Your task to perform on an android device: change text size in settings app Image 0: 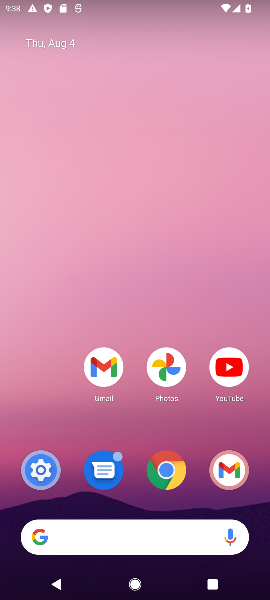
Step 0: click (47, 466)
Your task to perform on an android device: change text size in settings app Image 1: 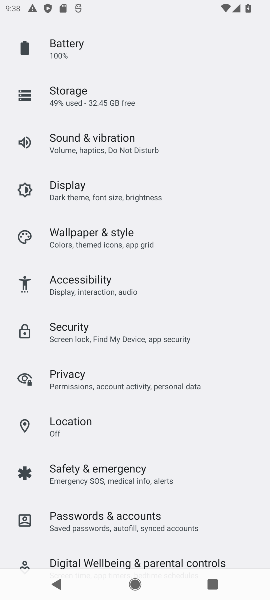
Step 1: click (130, 193)
Your task to perform on an android device: change text size in settings app Image 2: 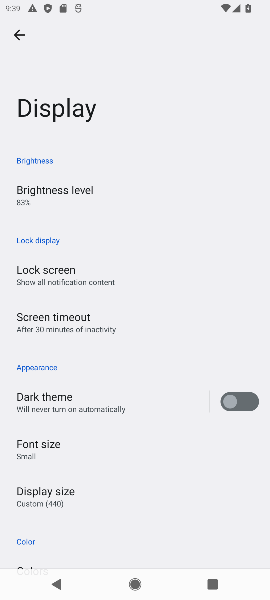
Step 2: click (37, 451)
Your task to perform on an android device: change text size in settings app Image 3: 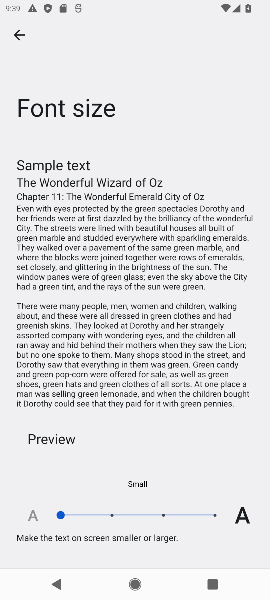
Step 3: click (163, 512)
Your task to perform on an android device: change text size in settings app Image 4: 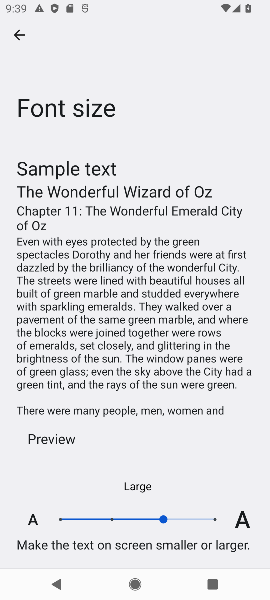
Step 4: task complete